Your task to perform on an android device: change the upload size in google photos Image 0: 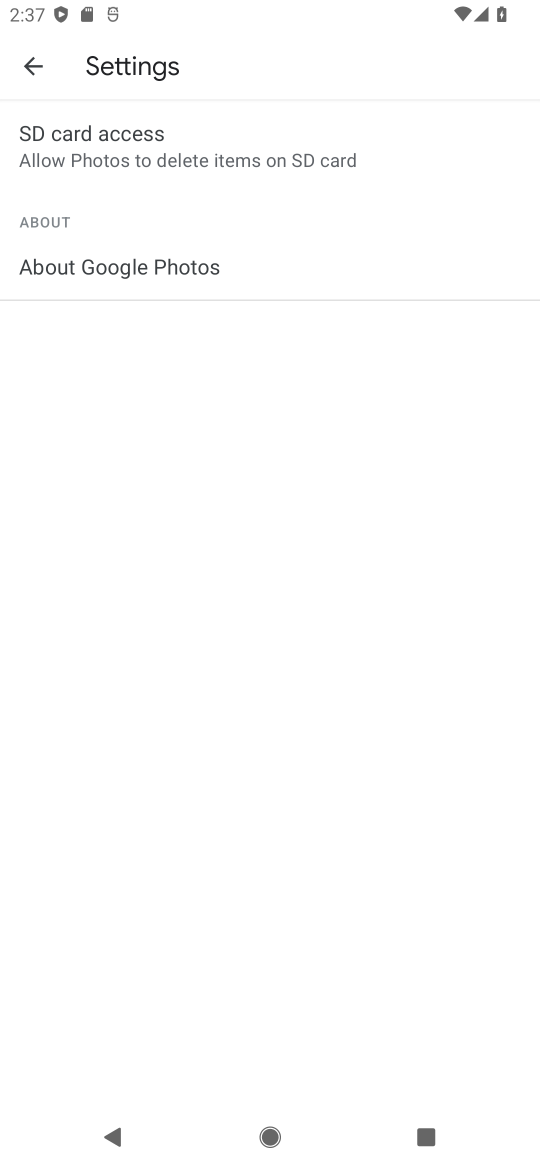
Step 0: press home button
Your task to perform on an android device: change the upload size in google photos Image 1: 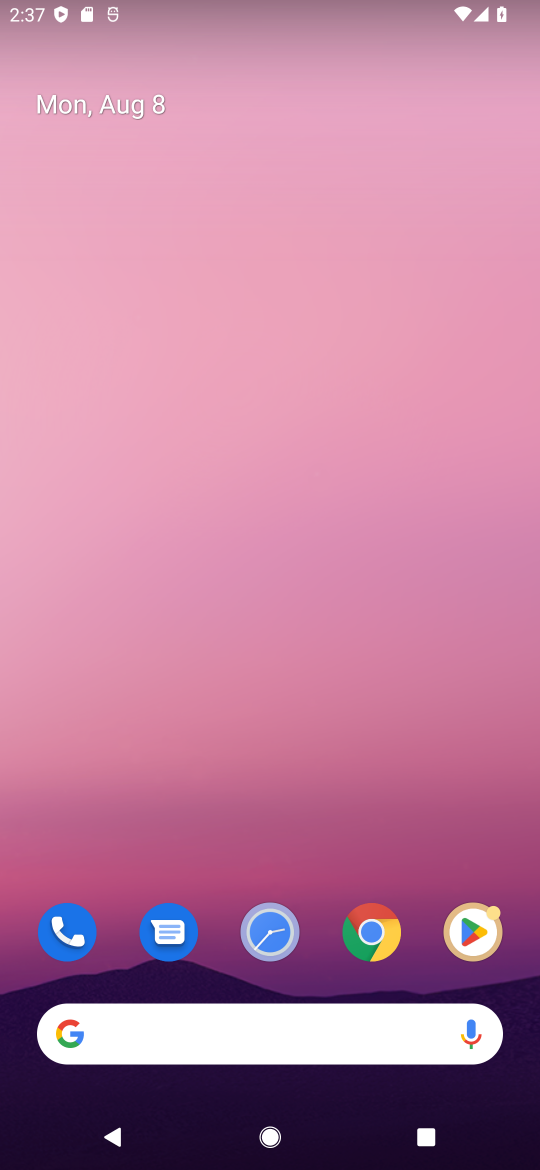
Step 1: drag from (334, 722) to (339, 42)
Your task to perform on an android device: change the upload size in google photos Image 2: 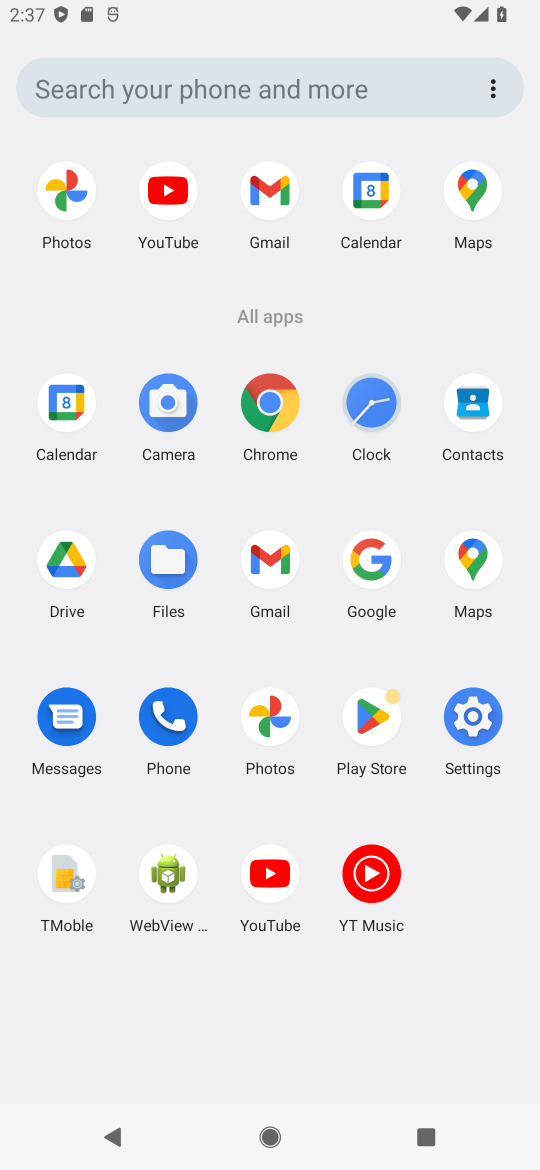
Step 2: click (269, 402)
Your task to perform on an android device: change the upload size in google photos Image 3: 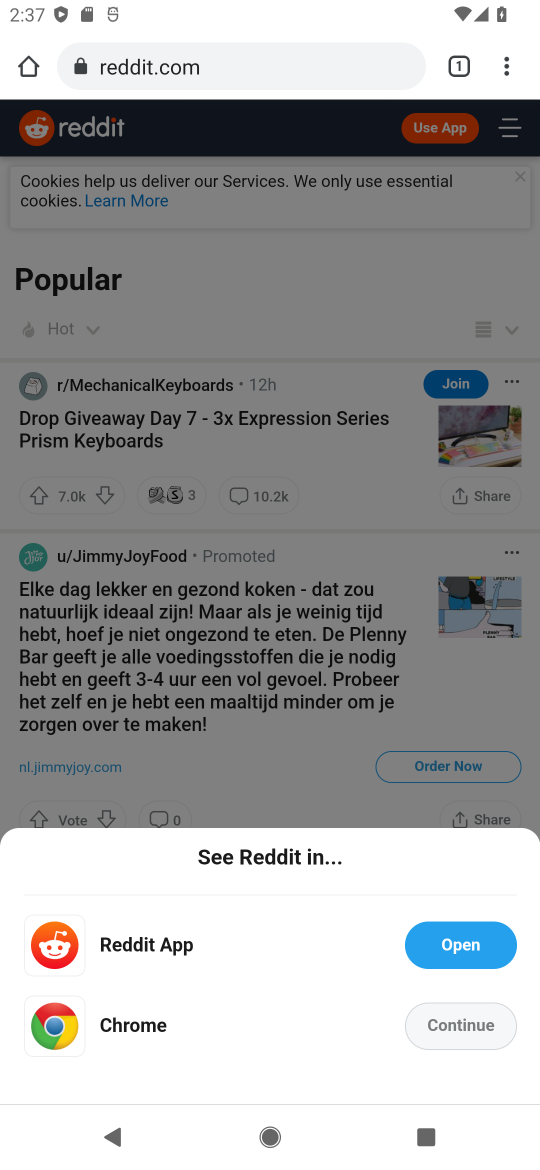
Step 3: press home button
Your task to perform on an android device: change the upload size in google photos Image 4: 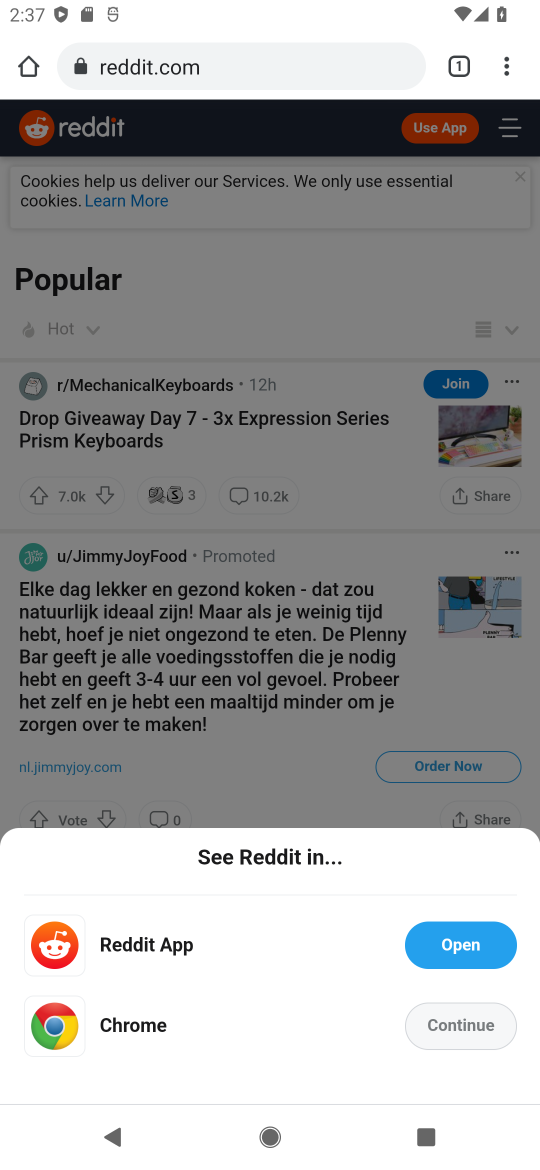
Step 4: press home button
Your task to perform on an android device: change the upload size in google photos Image 5: 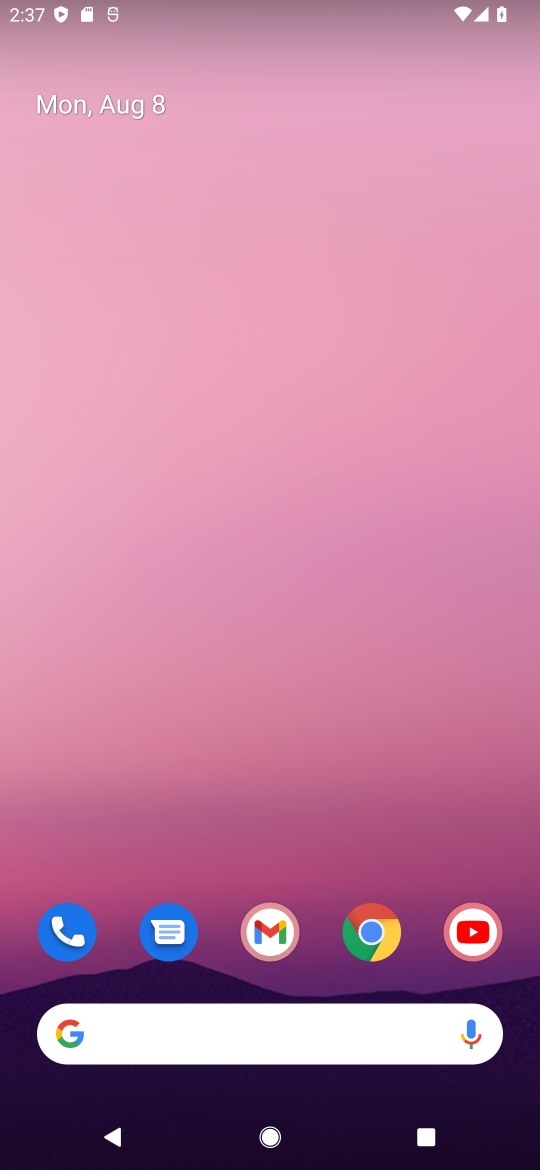
Step 5: drag from (427, 859) to (436, 119)
Your task to perform on an android device: change the upload size in google photos Image 6: 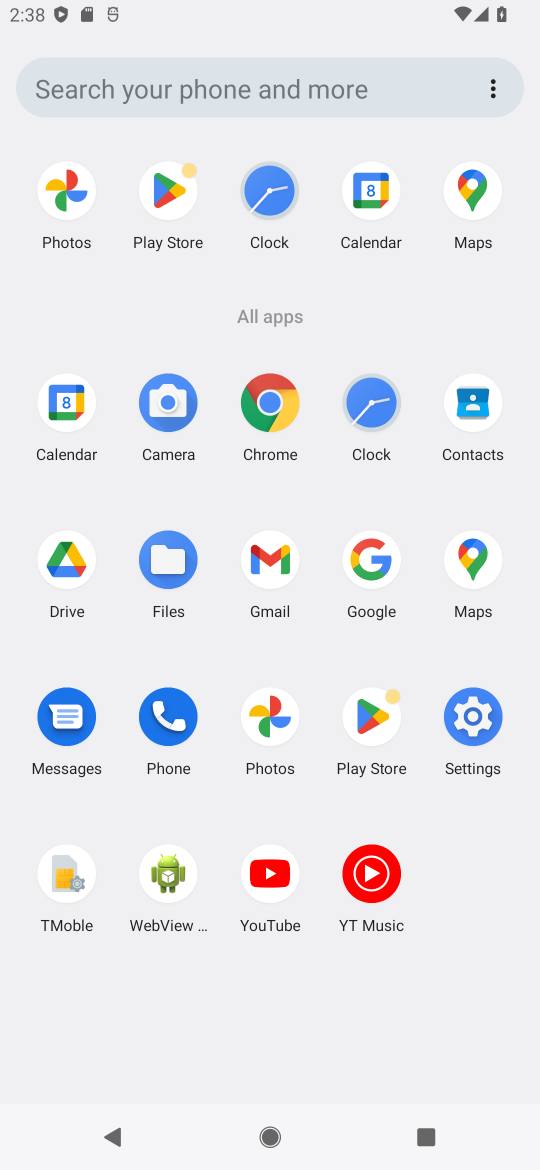
Step 6: click (285, 703)
Your task to perform on an android device: change the upload size in google photos Image 7: 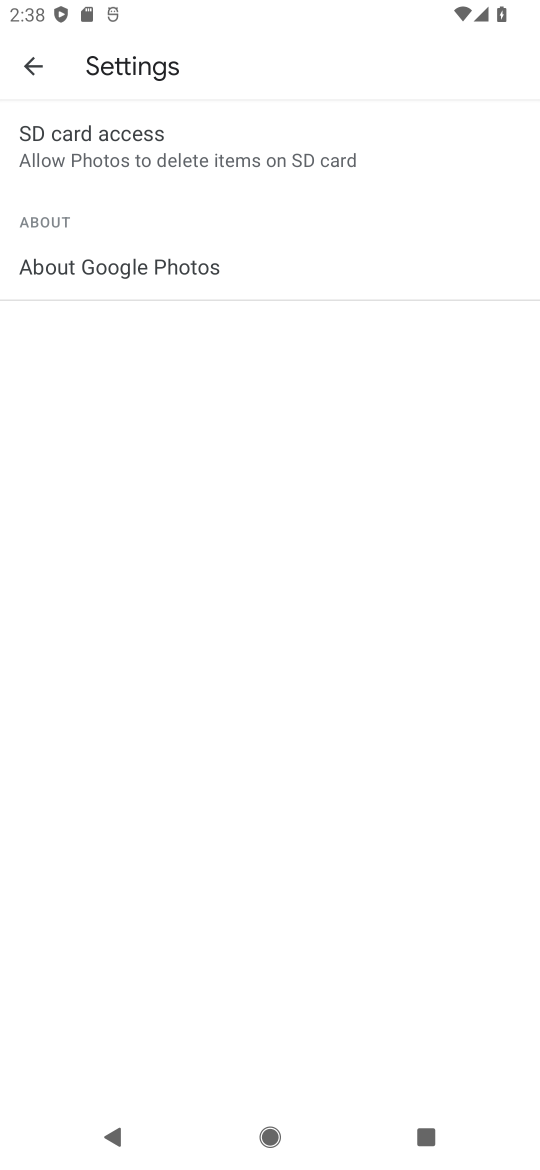
Step 7: click (38, 57)
Your task to perform on an android device: change the upload size in google photos Image 8: 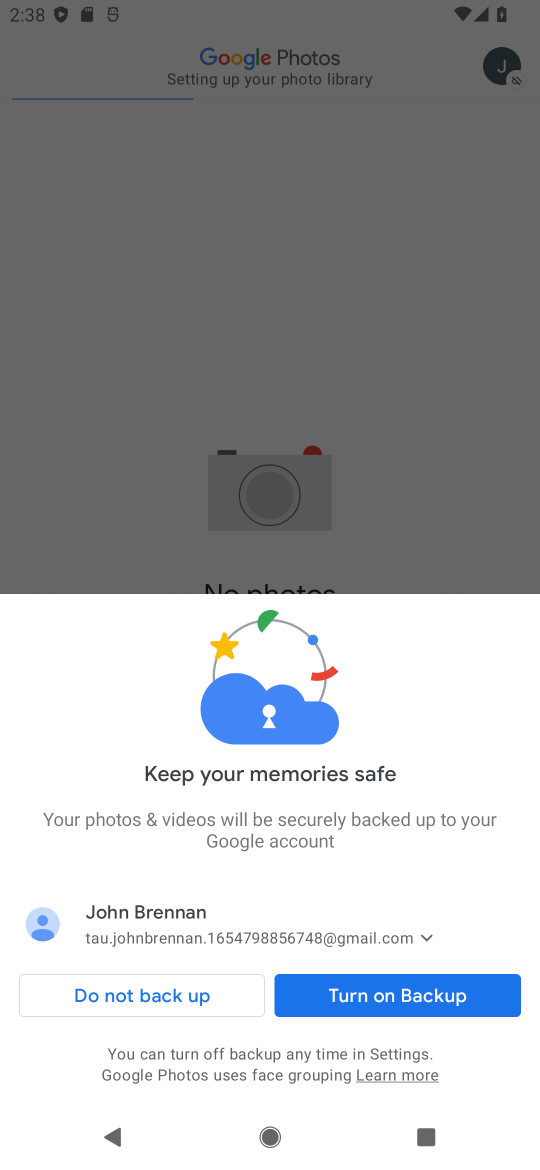
Step 8: click (421, 999)
Your task to perform on an android device: change the upload size in google photos Image 9: 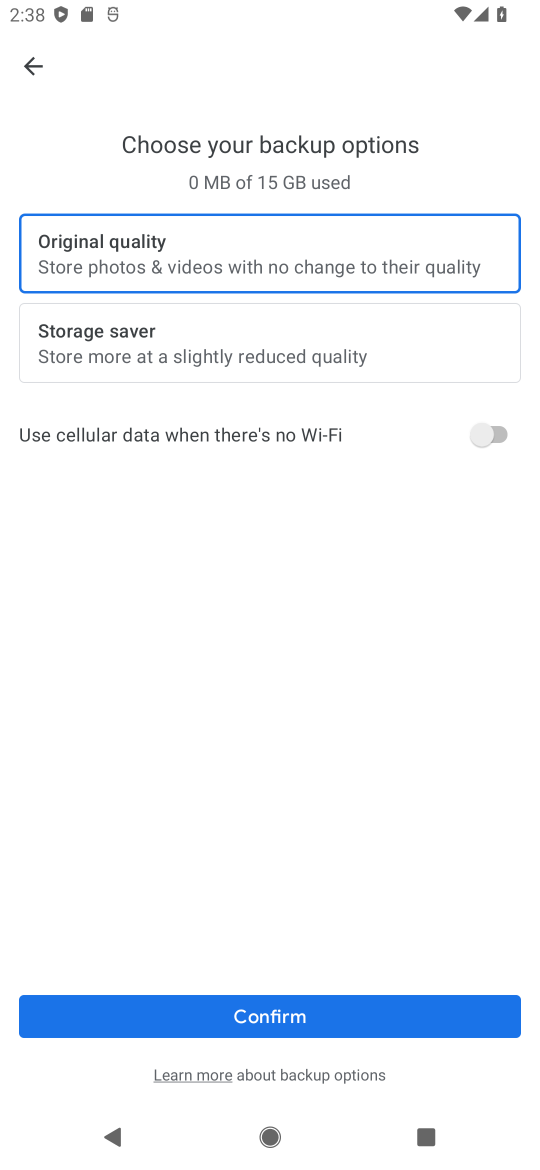
Step 9: click (409, 1027)
Your task to perform on an android device: change the upload size in google photos Image 10: 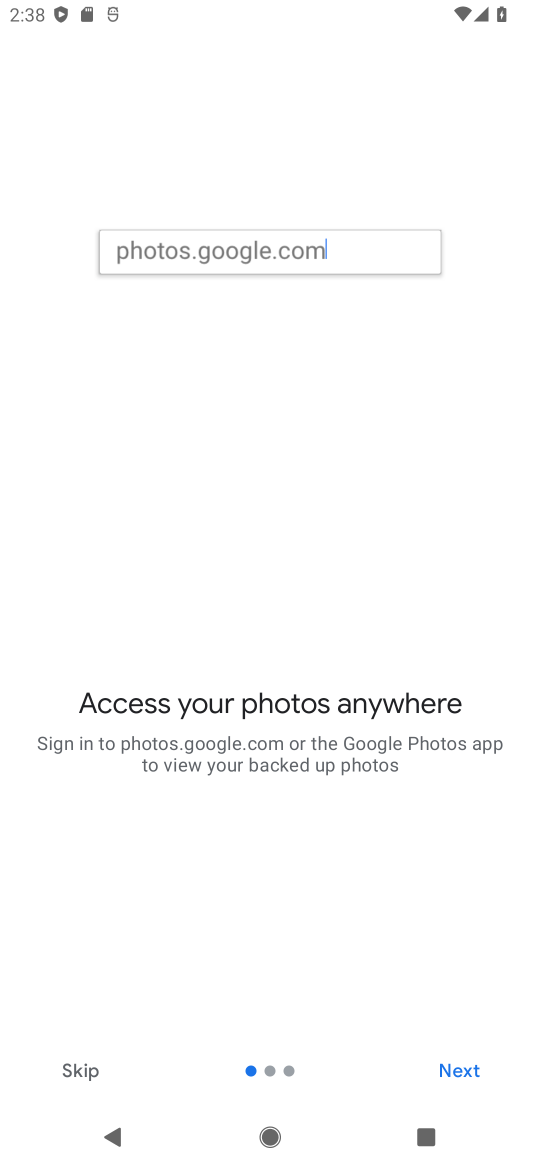
Step 10: click (482, 1055)
Your task to perform on an android device: change the upload size in google photos Image 11: 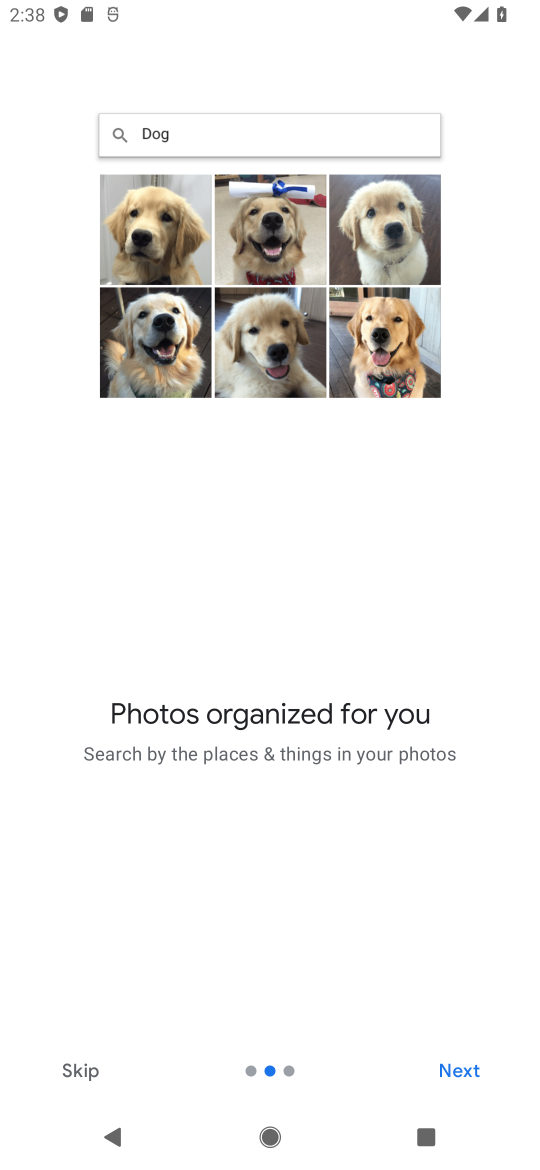
Step 11: click (465, 1071)
Your task to perform on an android device: change the upload size in google photos Image 12: 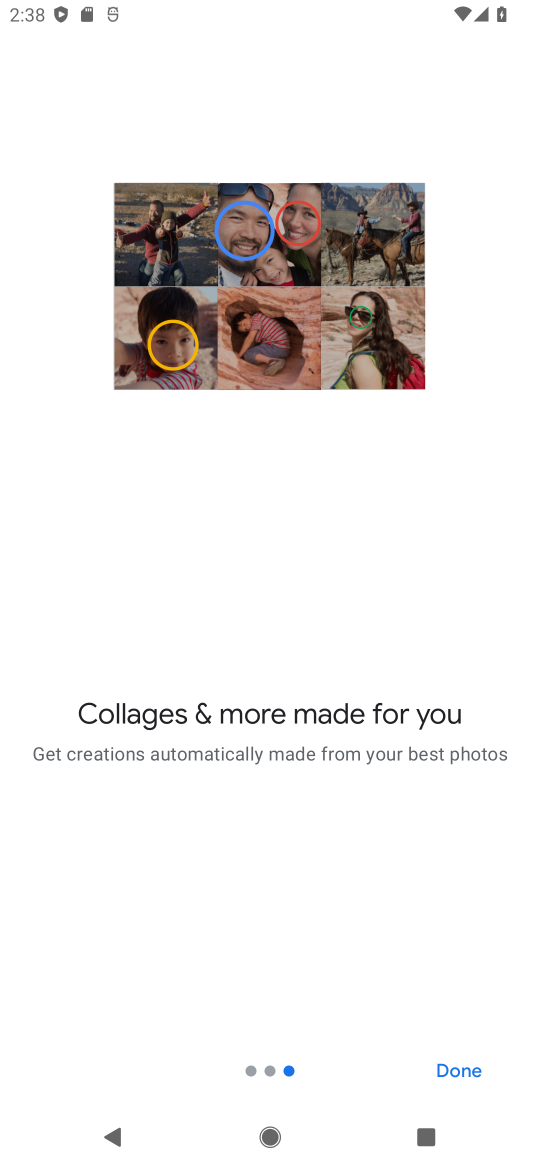
Step 12: click (495, 1053)
Your task to perform on an android device: change the upload size in google photos Image 13: 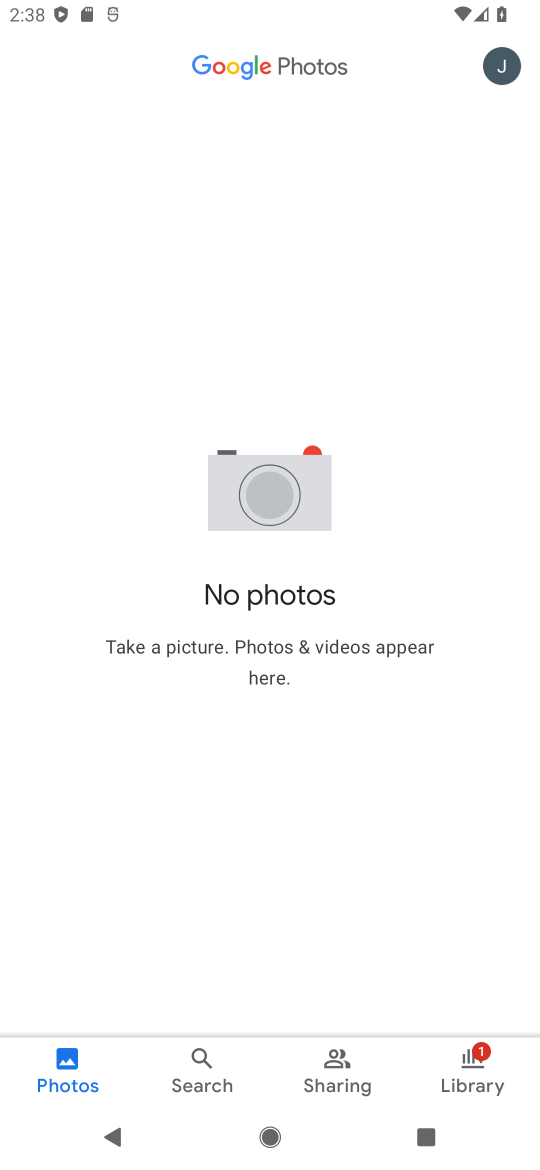
Step 13: click (526, 44)
Your task to perform on an android device: change the upload size in google photos Image 14: 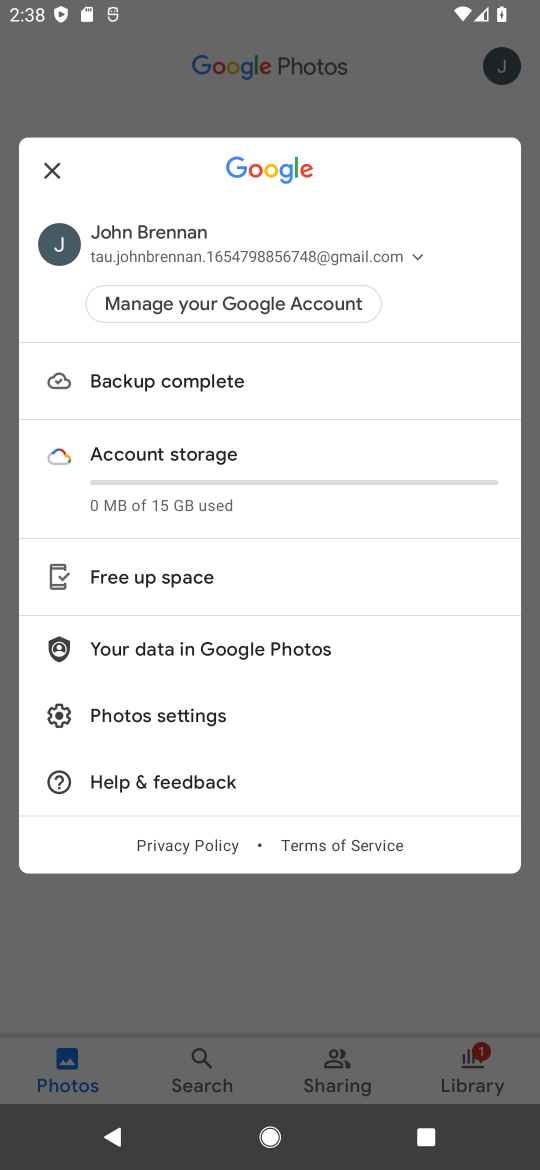
Step 14: click (143, 710)
Your task to perform on an android device: change the upload size in google photos Image 15: 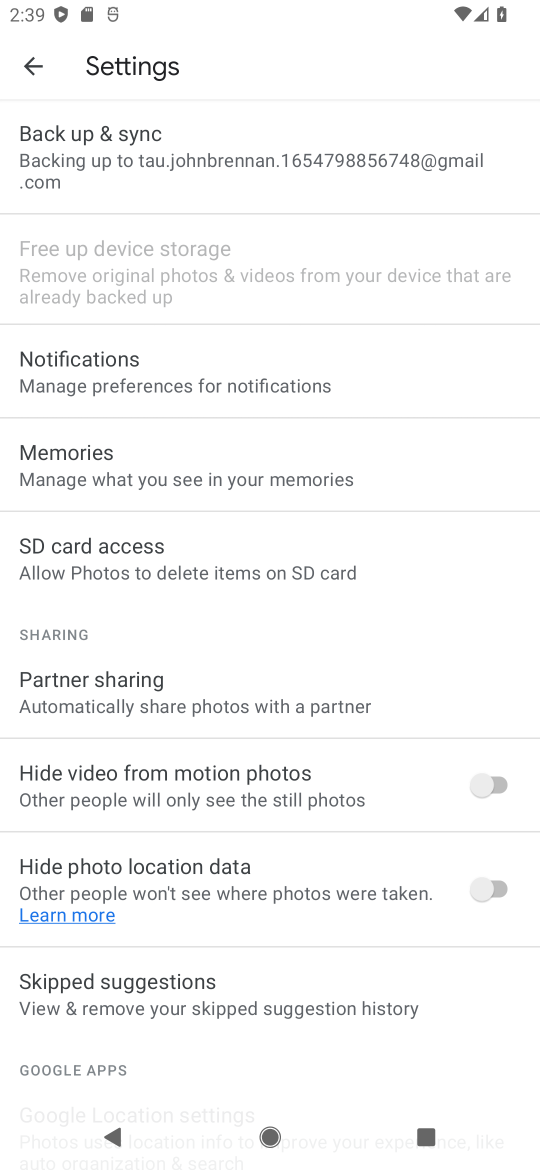
Step 15: click (210, 159)
Your task to perform on an android device: change the upload size in google photos Image 16: 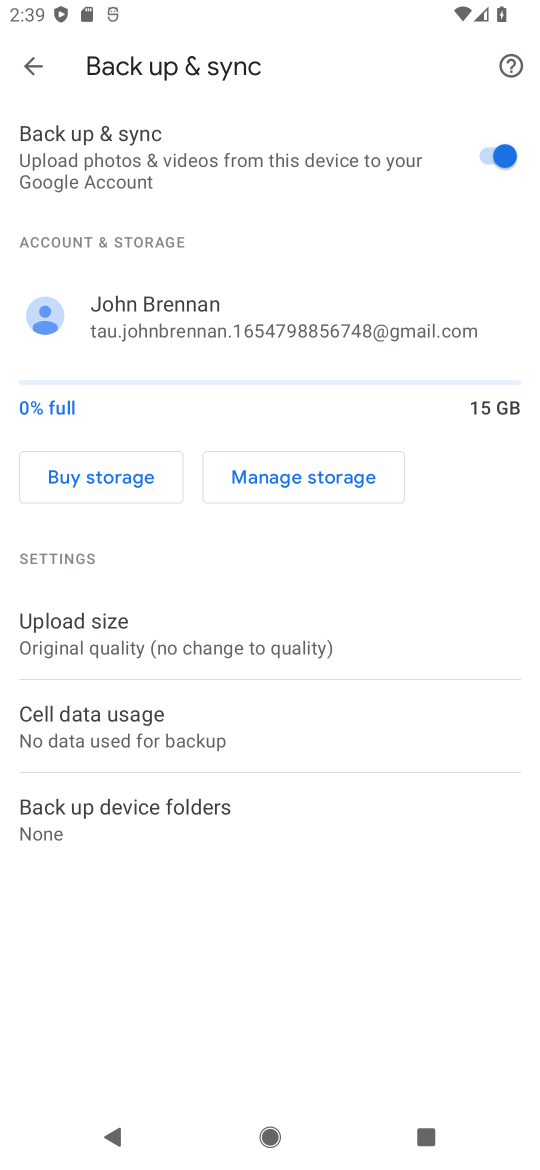
Step 16: click (171, 629)
Your task to perform on an android device: change the upload size in google photos Image 17: 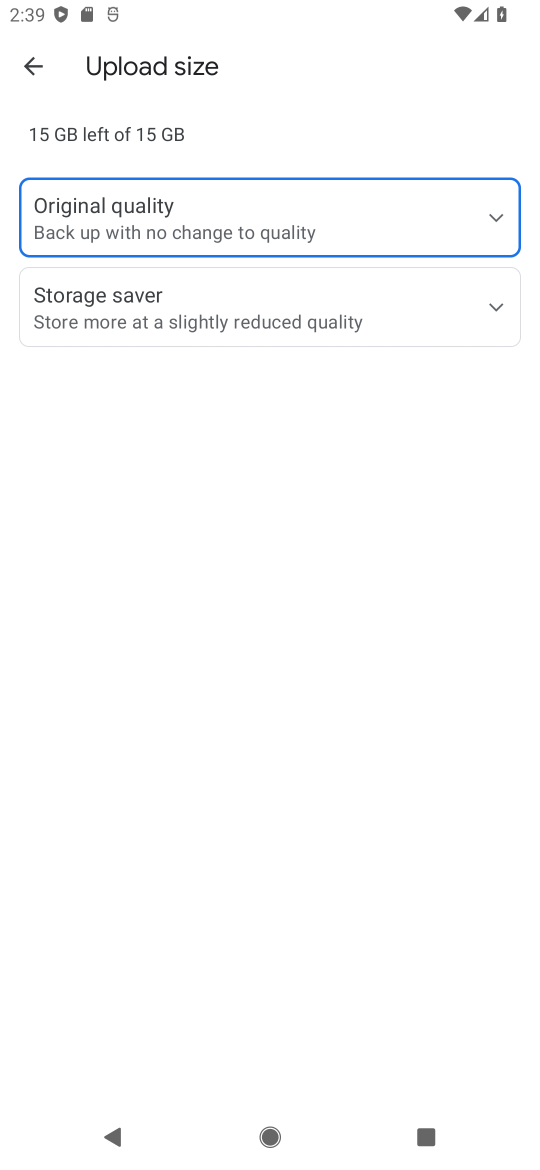
Step 17: click (176, 311)
Your task to perform on an android device: change the upload size in google photos Image 18: 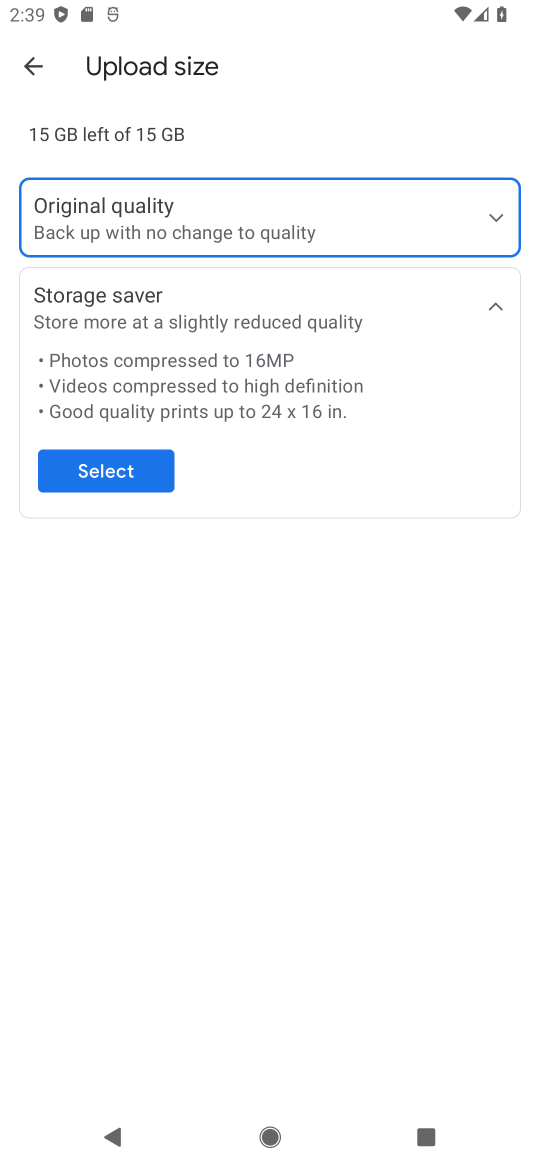
Step 18: click (94, 465)
Your task to perform on an android device: change the upload size in google photos Image 19: 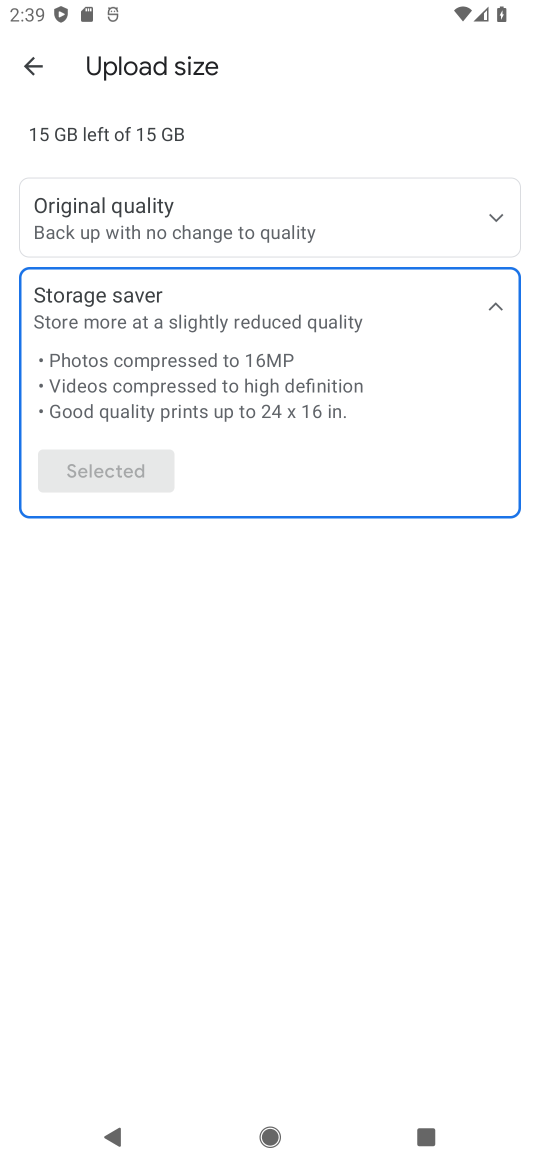
Step 19: task complete